Your task to perform on an android device: install app "NewsBreak: Local News & Alerts" Image 0: 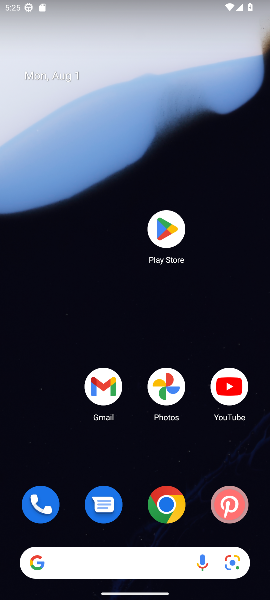
Step 0: click (166, 223)
Your task to perform on an android device: install app "NewsBreak: Local News & Alerts" Image 1: 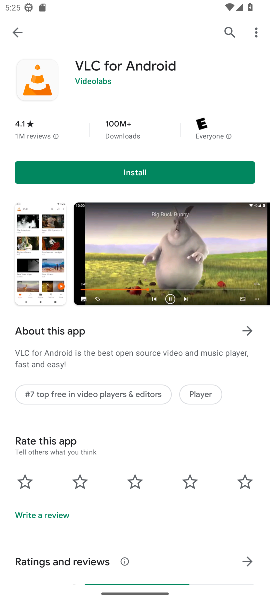
Step 1: click (225, 28)
Your task to perform on an android device: install app "NewsBreak: Local News & Alerts" Image 2: 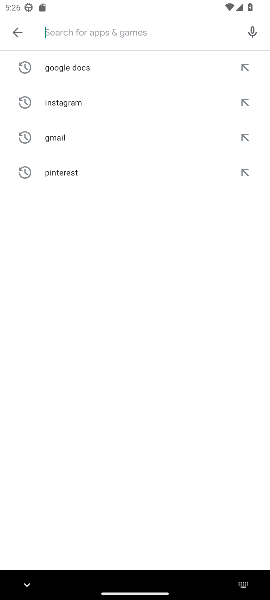
Step 2: type "NewsBreak: Local News & Alerts"
Your task to perform on an android device: install app "NewsBreak: Local News & Alerts" Image 3: 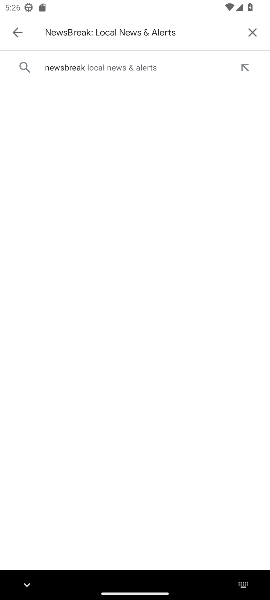
Step 3: click (127, 65)
Your task to perform on an android device: install app "NewsBreak: Local News & Alerts" Image 4: 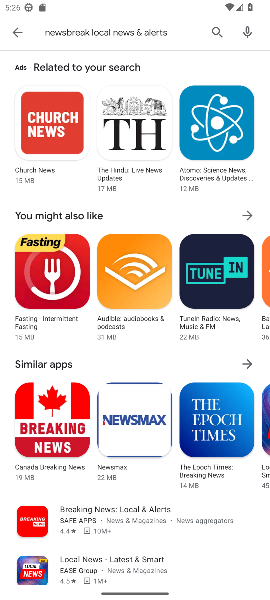
Step 4: drag from (128, 528) to (172, 129)
Your task to perform on an android device: install app "NewsBreak: Local News & Alerts" Image 5: 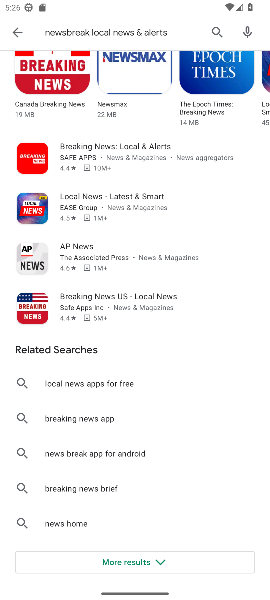
Step 5: drag from (152, 200) to (77, 541)
Your task to perform on an android device: install app "NewsBreak: Local News & Alerts" Image 6: 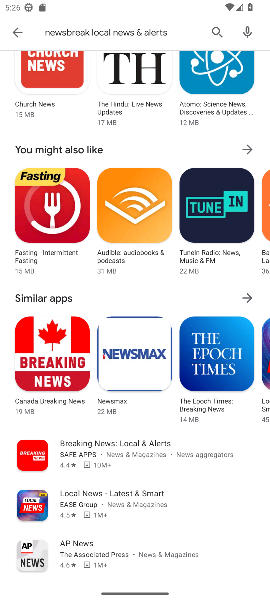
Step 6: drag from (125, 240) to (53, 542)
Your task to perform on an android device: install app "NewsBreak: Local News & Alerts" Image 7: 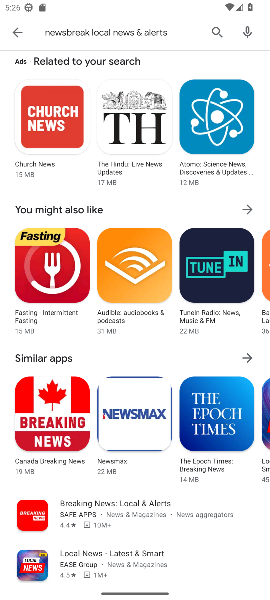
Step 7: click (213, 28)
Your task to perform on an android device: install app "NewsBreak: Local News & Alerts" Image 8: 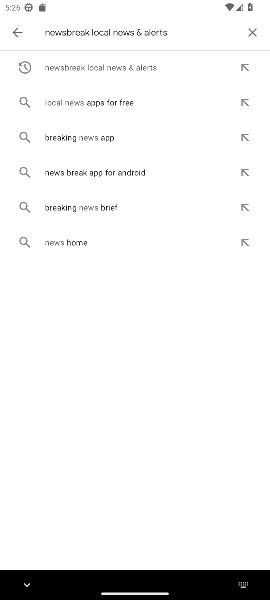
Step 8: click (71, 66)
Your task to perform on an android device: install app "NewsBreak: Local News & Alerts" Image 9: 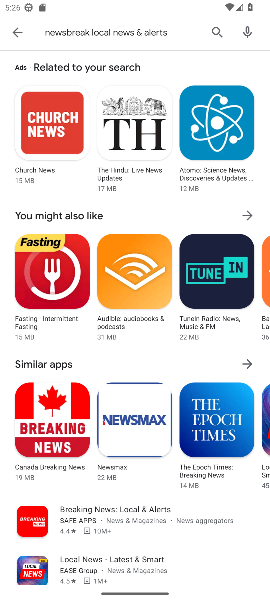
Step 9: task complete